Your task to perform on an android device: open wifi settings Image 0: 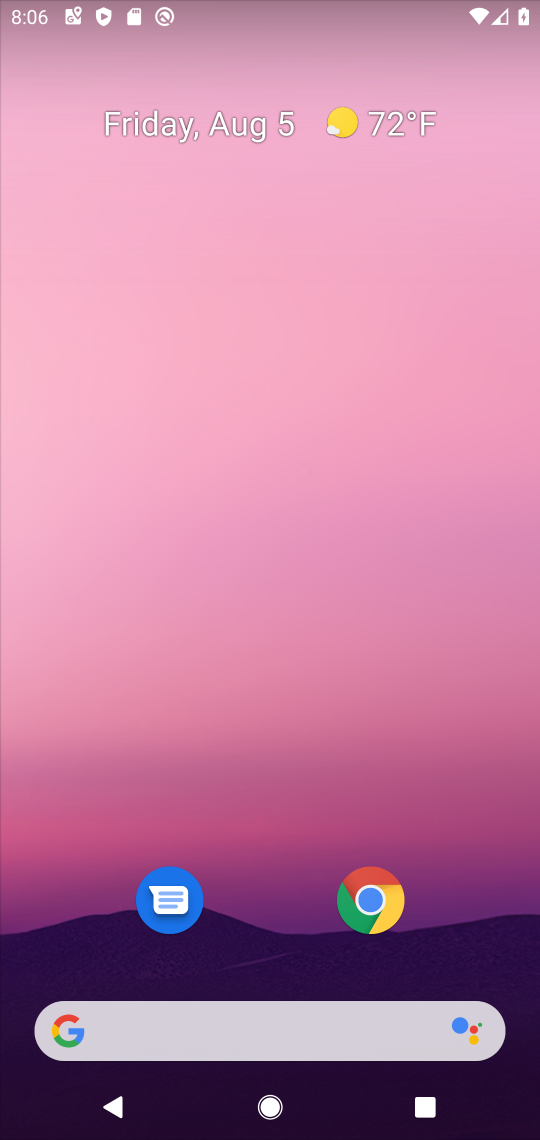
Step 0: drag from (230, 775) to (230, 344)
Your task to perform on an android device: open wifi settings Image 1: 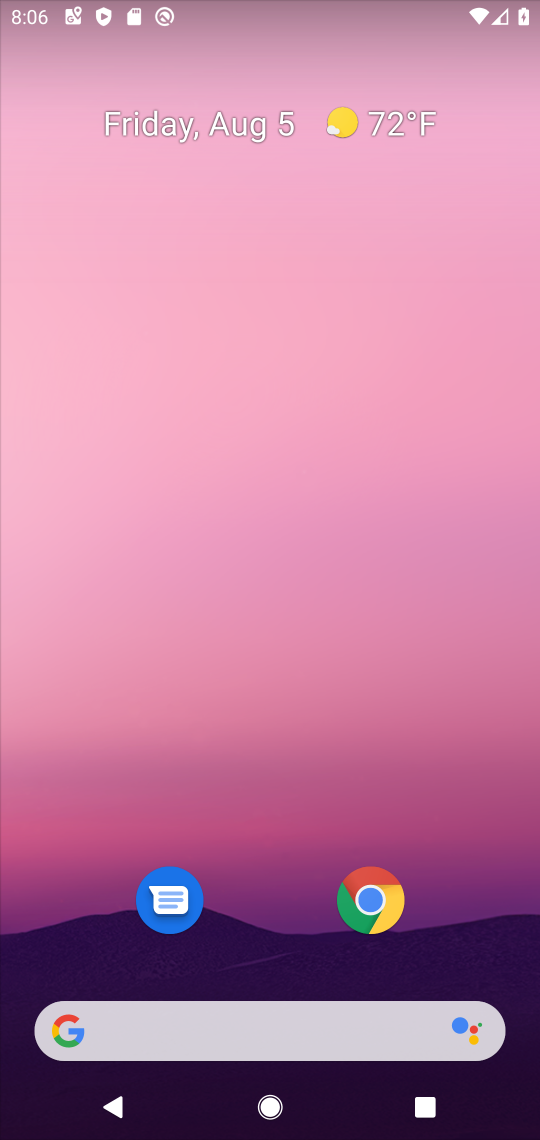
Step 1: drag from (280, 797) to (329, 214)
Your task to perform on an android device: open wifi settings Image 2: 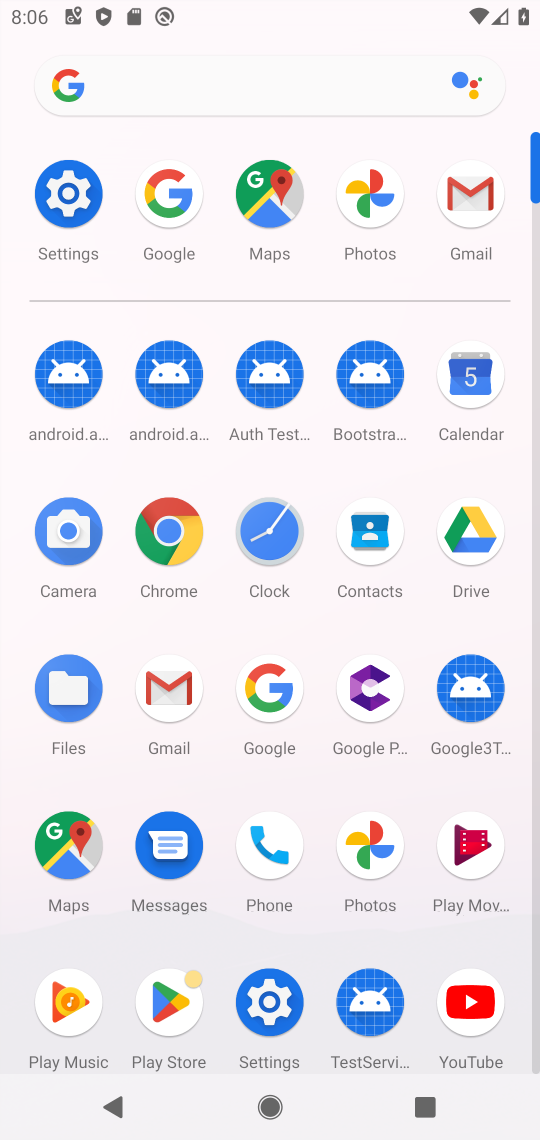
Step 2: click (74, 201)
Your task to perform on an android device: open wifi settings Image 3: 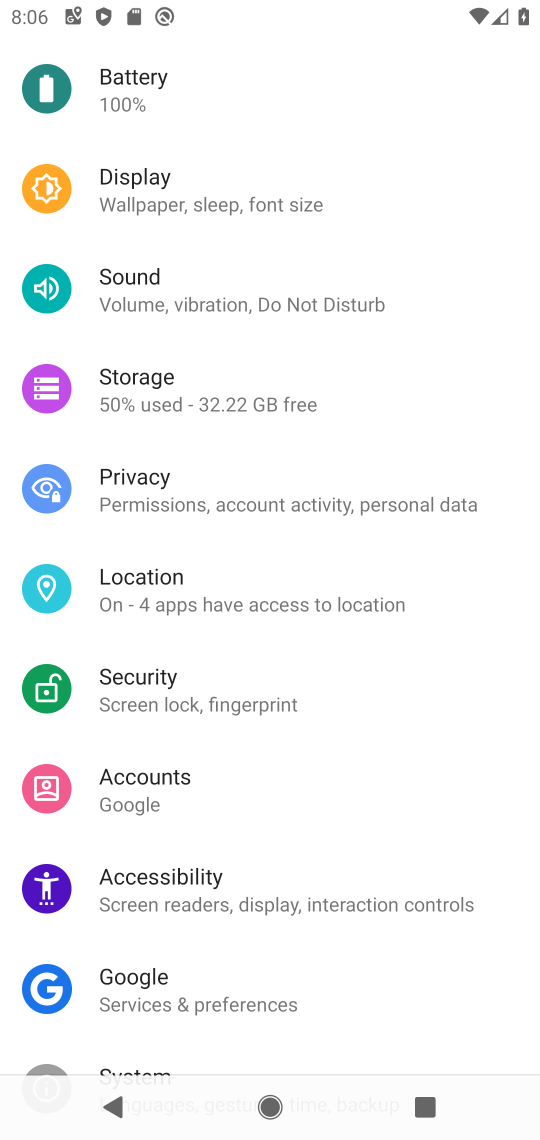
Step 3: drag from (297, 152) to (241, 656)
Your task to perform on an android device: open wifi settings Image 4: 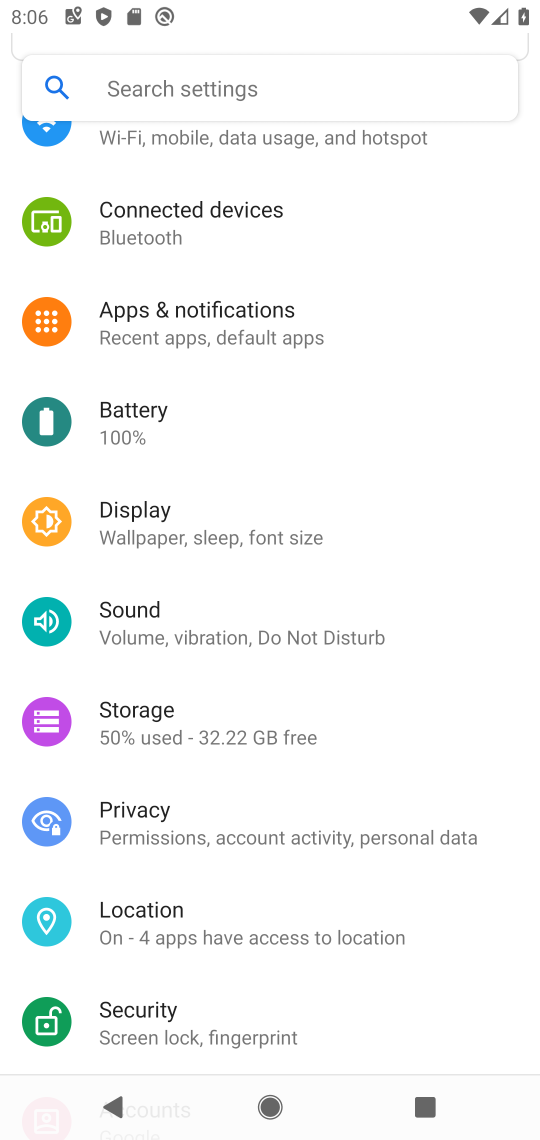
Step 4: drag from (218, 144) to (184, 753)
Your task to perform on an android device: open wifi settings Image 5: 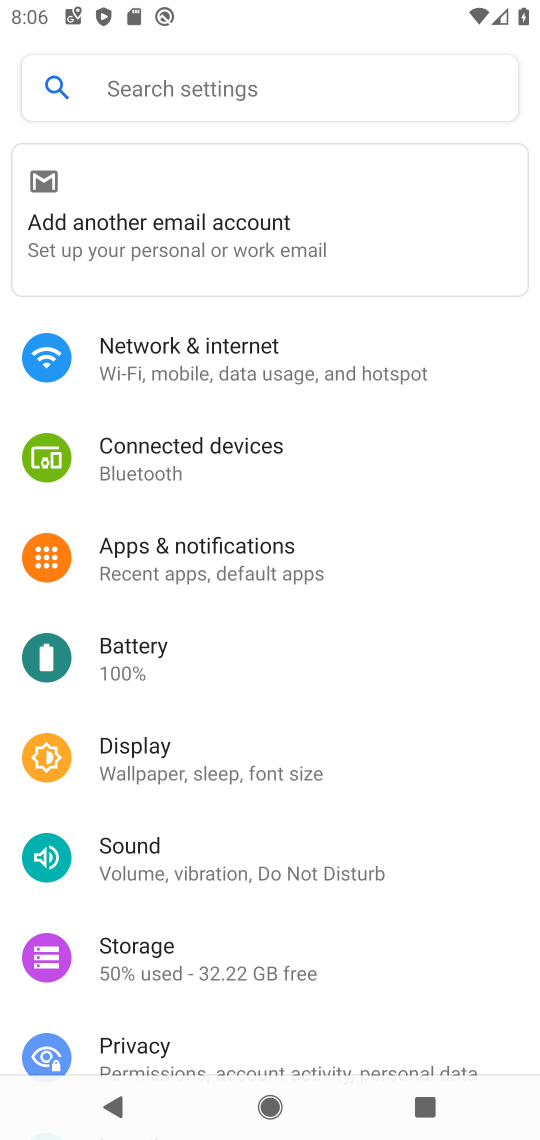
Step 5: click (151, 364)
Your task to perform on an android device: open wifi settings Image 6: 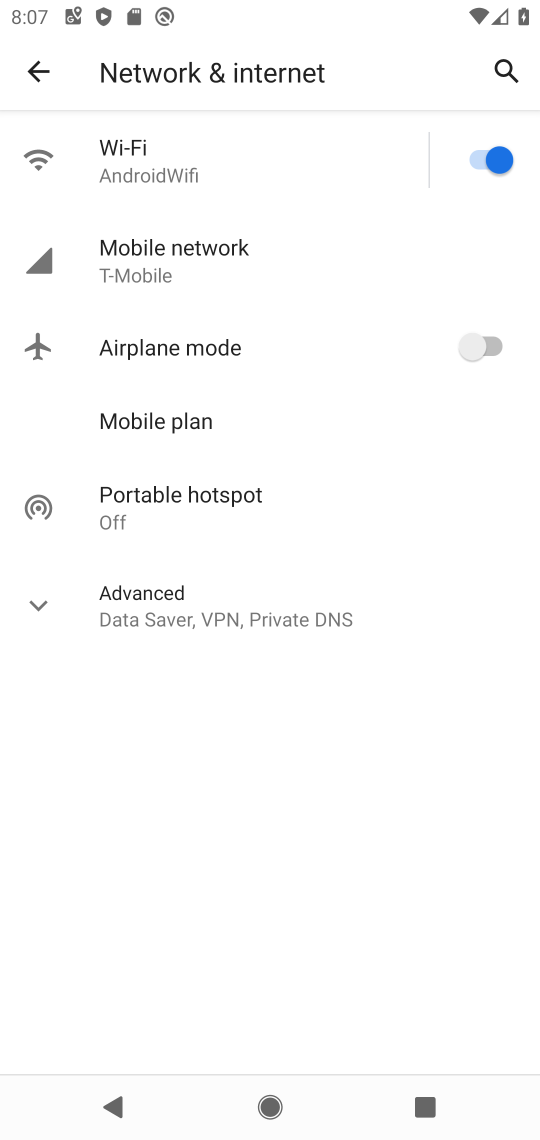
Step 6: click (168, 615)
Your task to perform on an android device: open wifi settings Image 7: 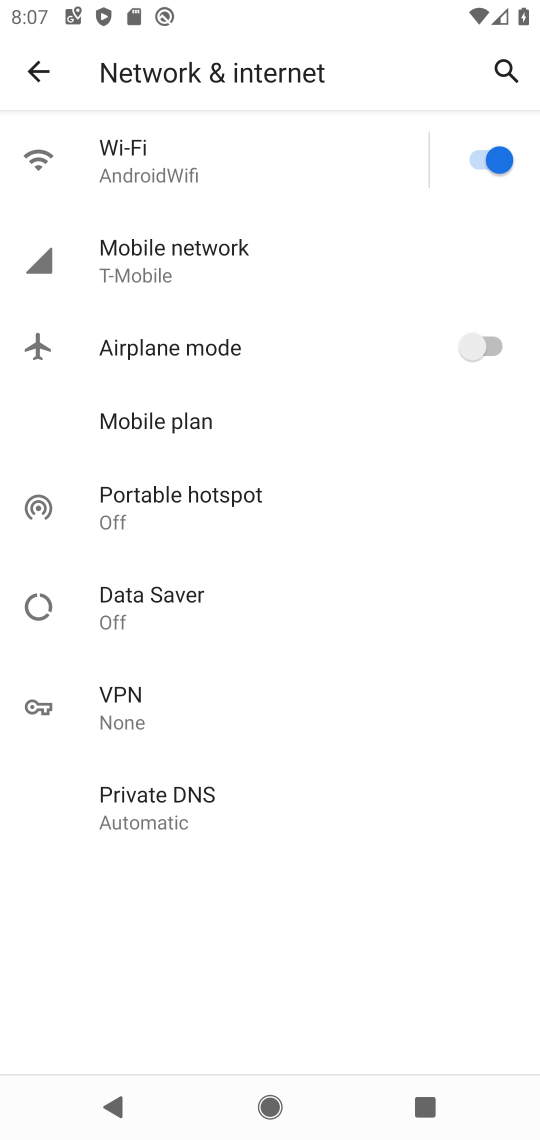
Step 7: task complete